Your task to perform on an android device: Open Google Chrome and click the shortcut for Amazon.com Image 0: 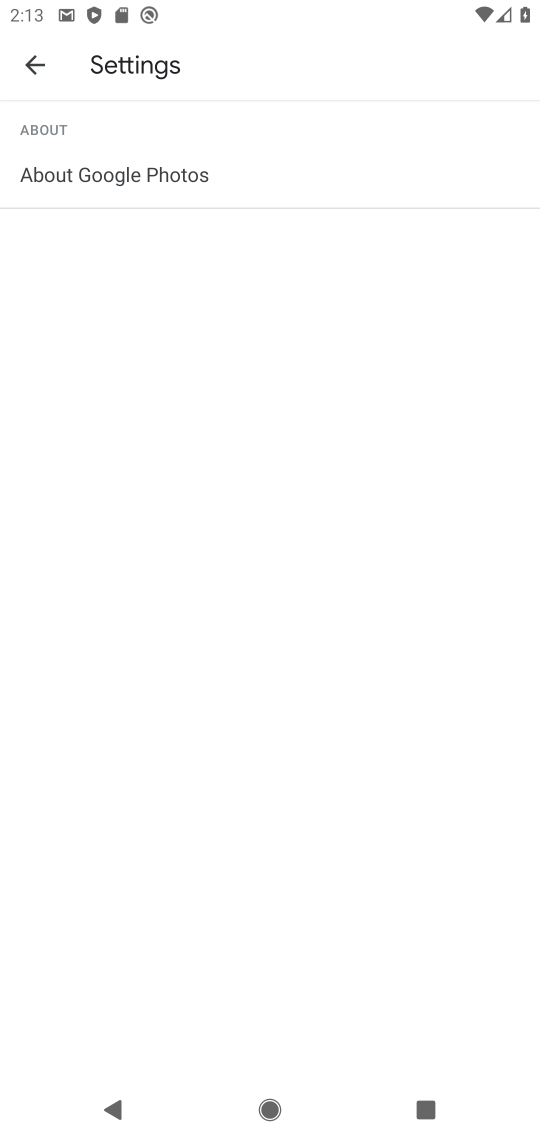
Step 0: press home button
Your task to perform on an android device: Open Google Chrome and click the shortcut for Amazon.com Image 1: 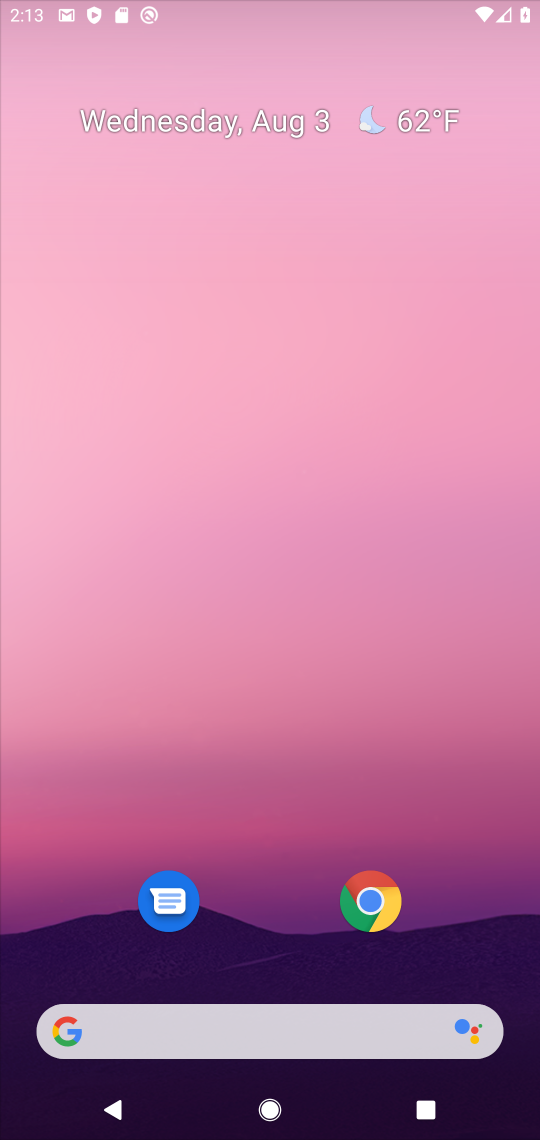
Step 1: drag from (214, 1052) to (261, 547)
Your task to perform on an android device: Open Google Chrome and click the shortcut for Amazon.com Image 2: 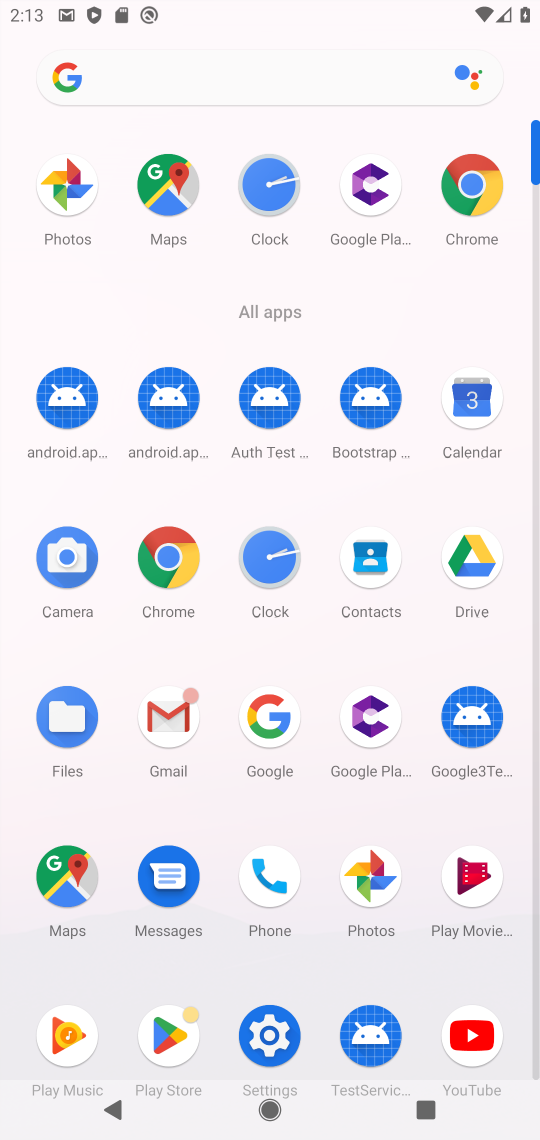
Step 2: click (174, 568)
Your task to perform on an android device: Open Google Chrome and click the shortcut for Amazon.com Image 3: 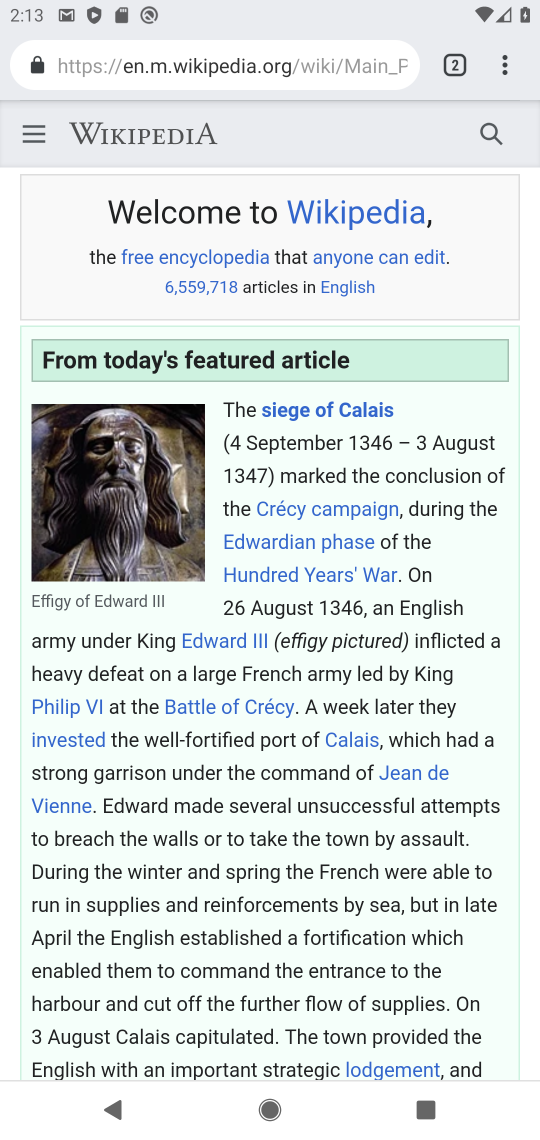
Step 3: click (521, 45)
Your task to perform on an android device: Open Google Chrome and click the shortcut for Amazon.com Image 4: 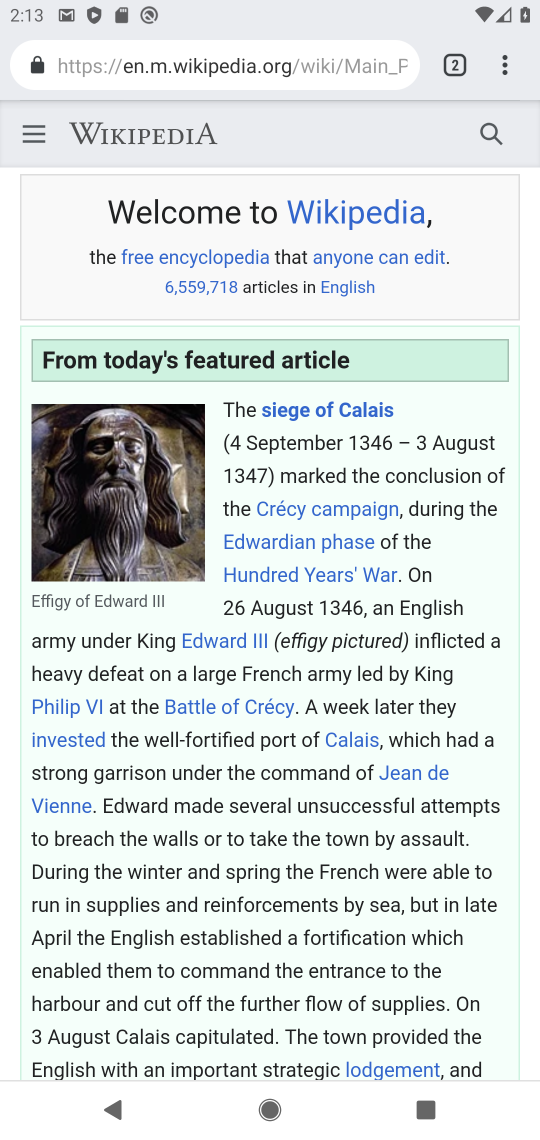
Step 4: click (516, 54)
Your task to perform on an android device: Open Google Chrome and click the shortcut for Amazon.com Image 5: 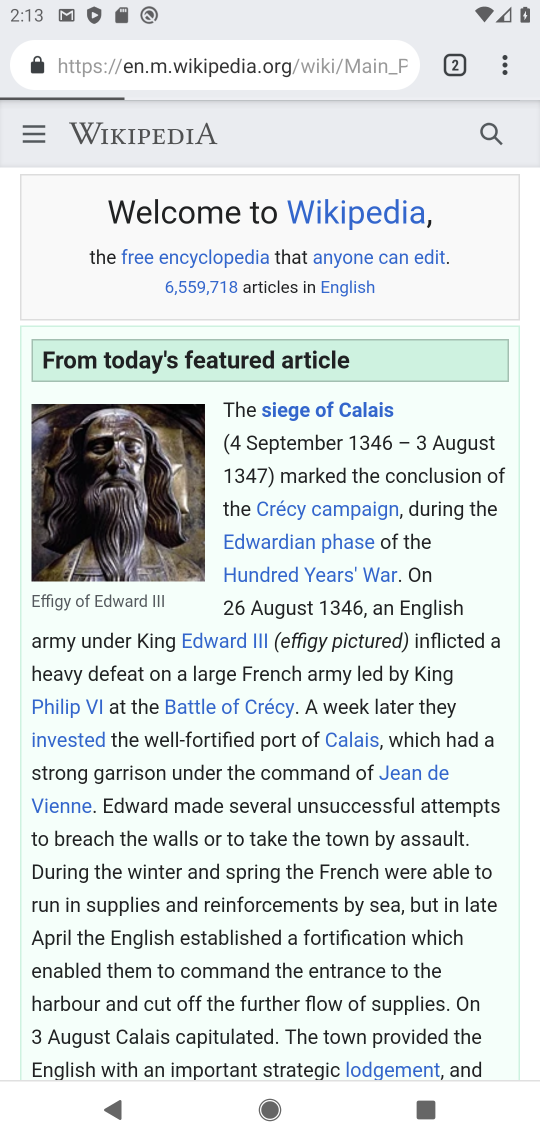
Step 5: click (514, 65)
Your task to perform on an android device: Open Google Chrome and click the shortcut for Amazon.com Image 6: 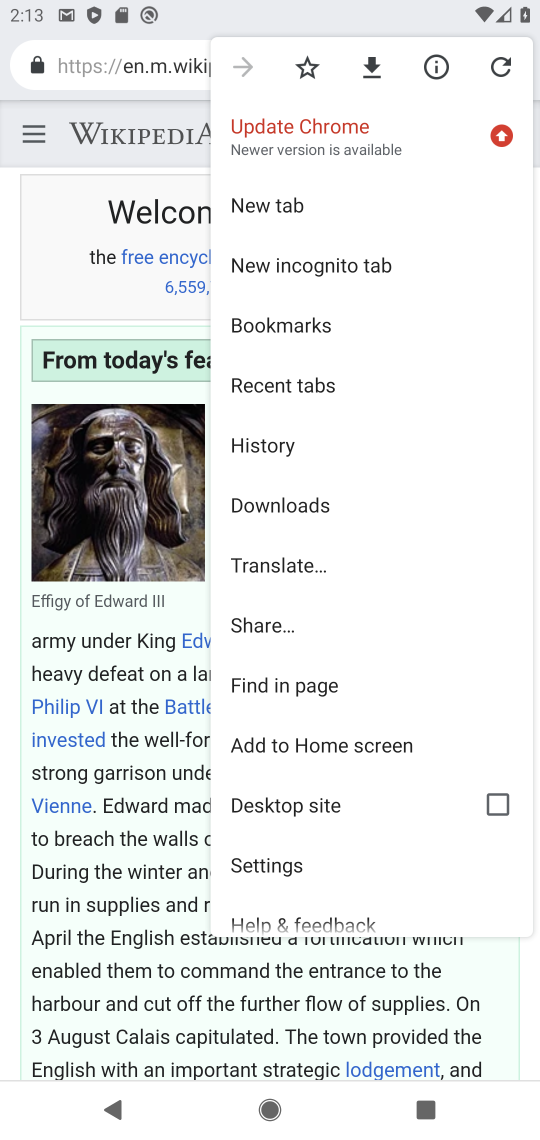
Step 6: click (285, 205)
Your task to perform on an android device: Open Google Chrome and click the shortcut for Amazon.com Image 7: 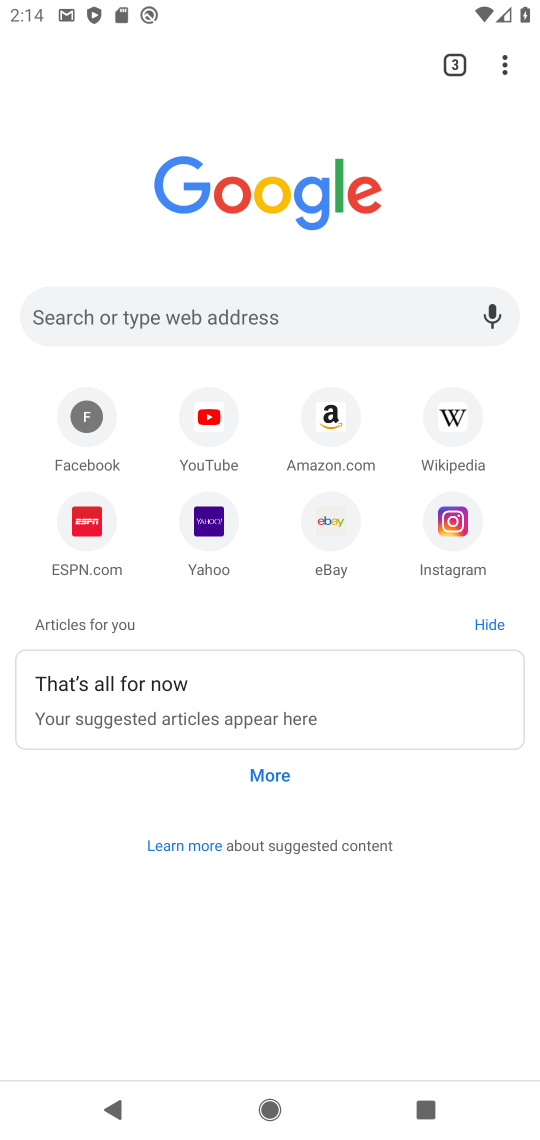
Step 7: click (352, 409)
Your task to perform on an android device: Open Google Chrome and click the shortcut for Amazon.com Image 8: 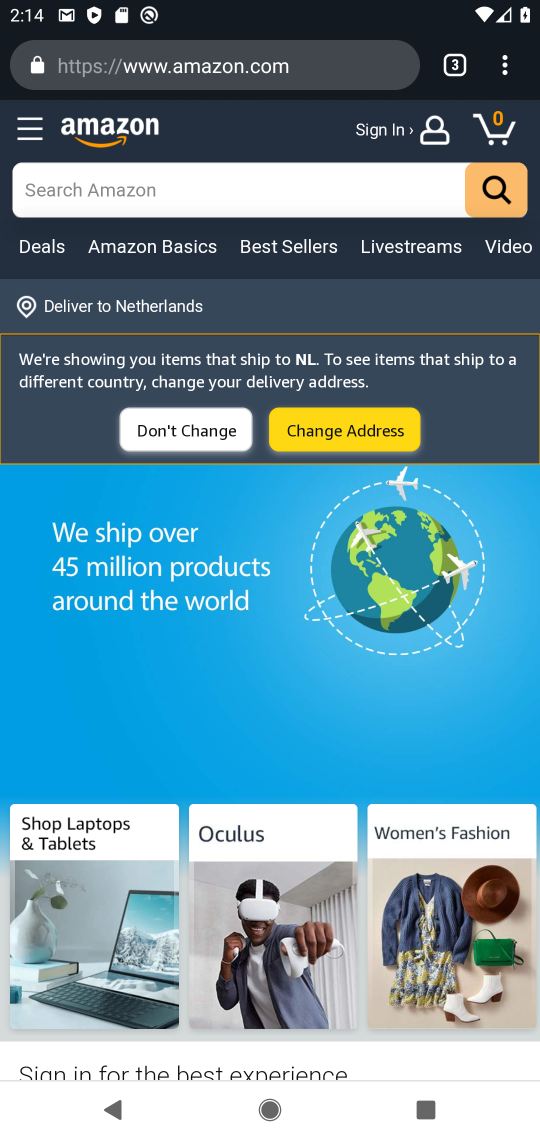
Step 8: task complete